Your task to perform on an android device: Check the weather Image 0: 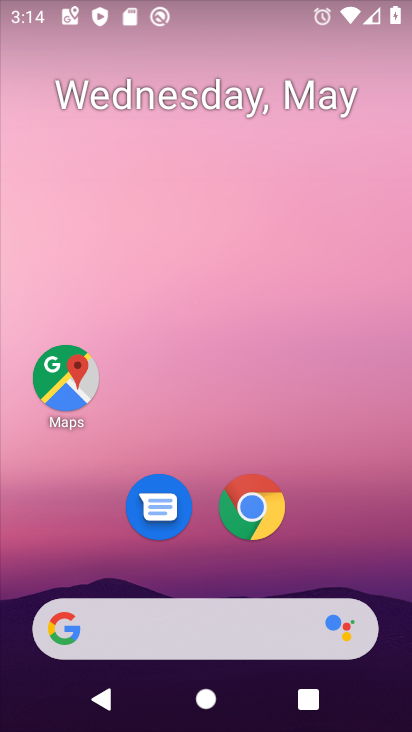
Step 0: drag from (232, 498) to (334, 42)
Your task to perform on an android device: Check the weather Image 1: 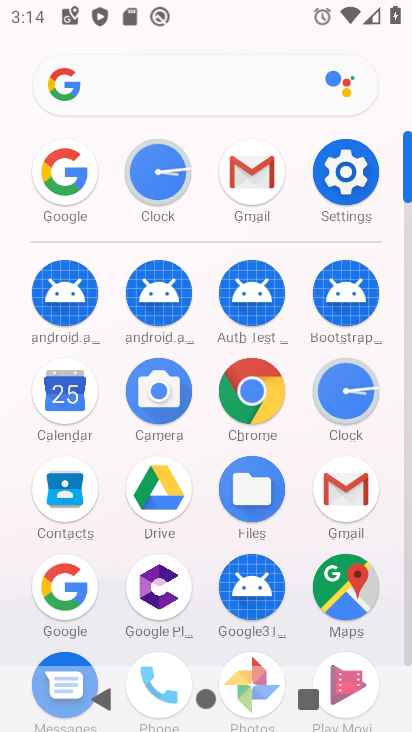
Step 1: click (64, 170)
Your task to perform on an android device: Check the weather Image 2: 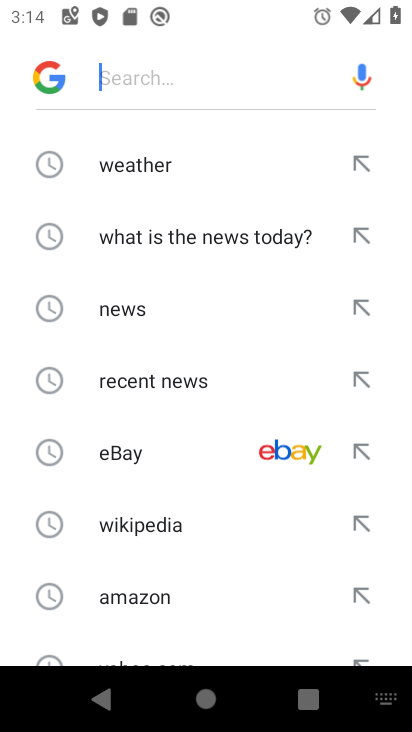
Step 2: click (152, 164)
Your task to perform on an android device: Check the weather Image 3: 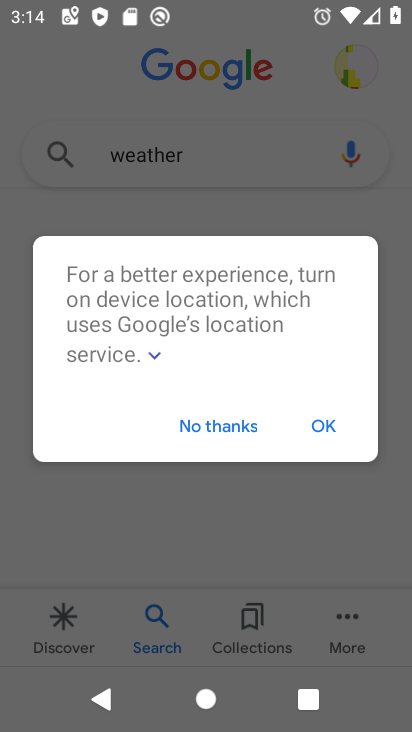
Step 3: click (264, 420)
Your task to perform on an android device: Check the weather Image 4: 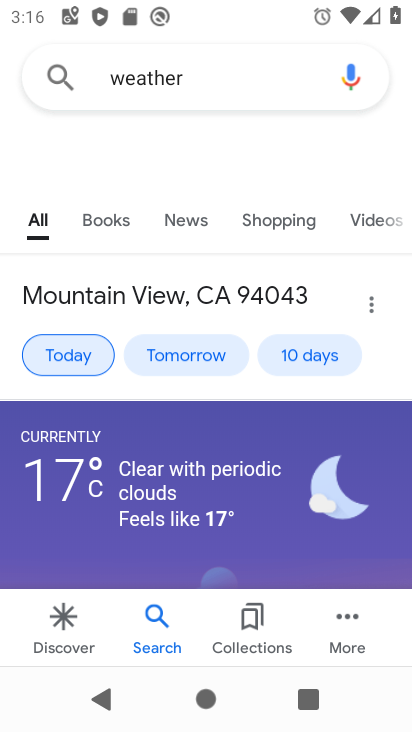
Step 4: task complete